Your task to perform on an android device: Go to calendar. Show me events next week Image 0: 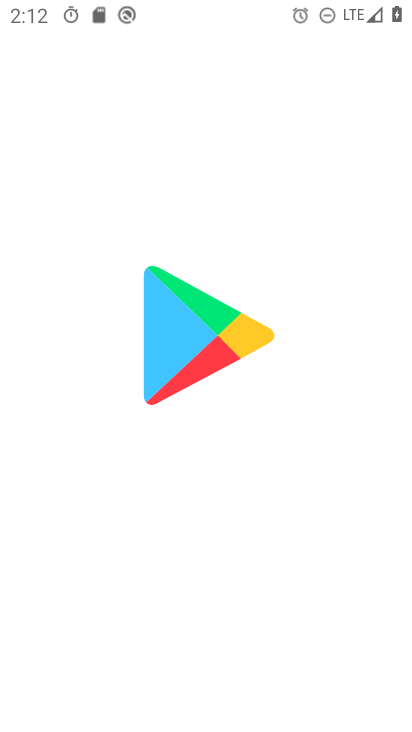
Step 0: drag from (196, 595) to (197, 250)
Your task to perform on an android device: Go to calendar. Show me events next week Image 1: 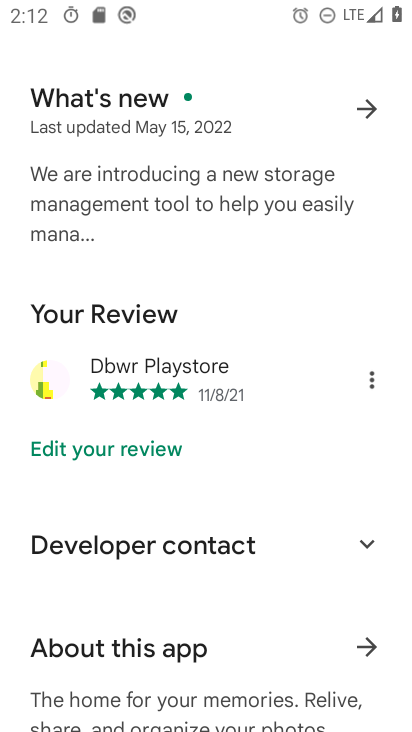
Step 1: press home button
Your task to perform on an android device: Go to calendar. Show me events next week Image 2: 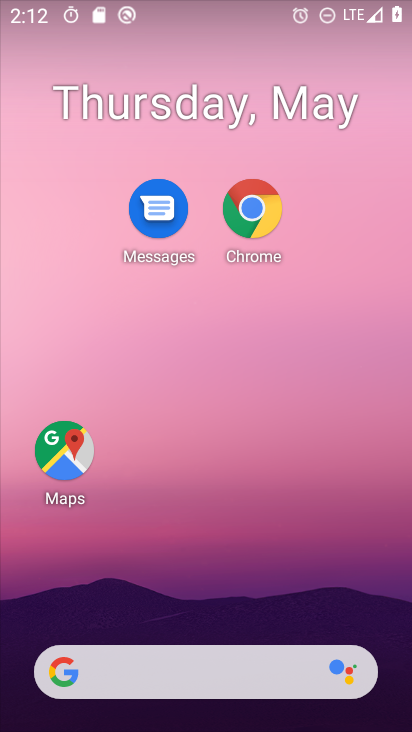
Step 2: drag from (205, 586) to (167, 58)
Your task to perform on an android device: Go to calendar. Show me events next week Image 3: 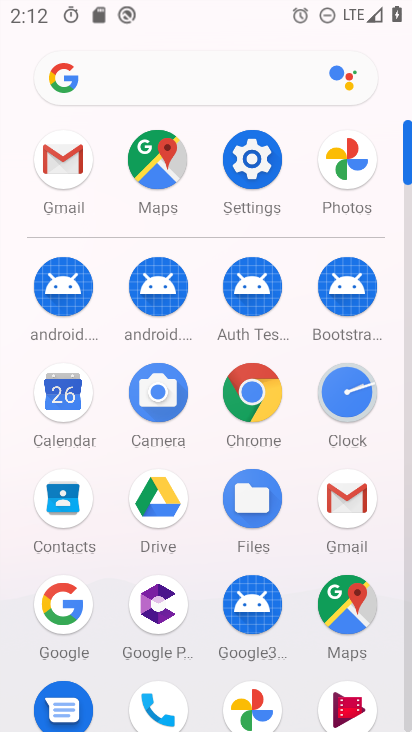
Step 3: click (49, 421)
Your task to perform on an android device: Go to calendar. Show me events next week Image 4: 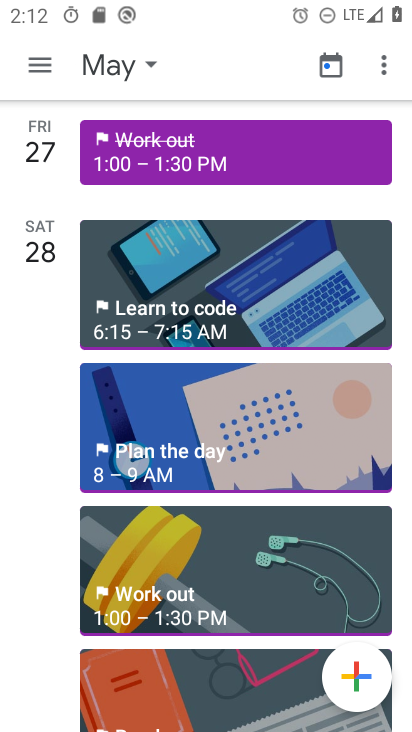
Step 4: click (43, 66)
Your task to perform on an android device: Go to calendar. Show me events next week Image 5: 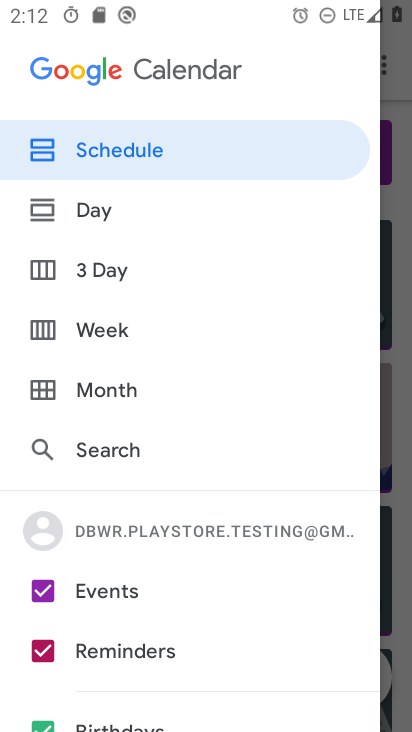
Step 5: click (59, 325)
Your task to perform on an android device: Go to calendar. Show me events next week Image 6: 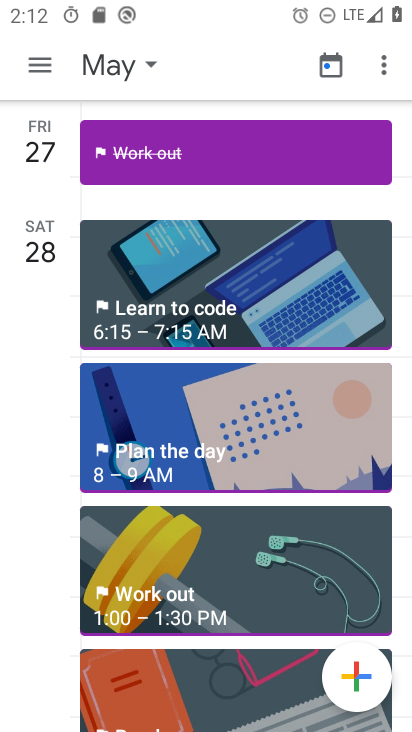
Step 6: click (110, 332)
Your task to perform on an android device: Go to calendar. Show me events next week Image 7: 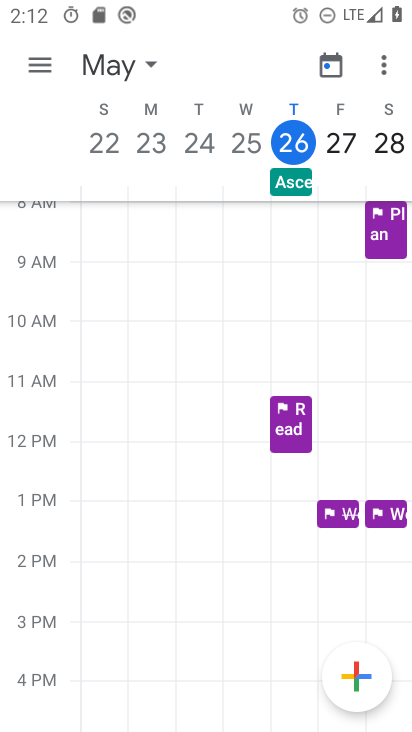
Step 7: drag from (200, 559) to (240, 188)
Your task to perform on an android device: Go to calendar. Show me events next week Image 8: 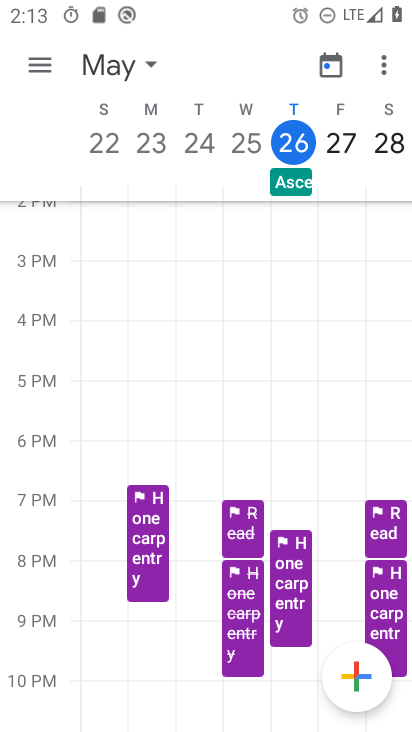
Step 8: click (107, 49)
Your task to perform on an android device: Go to calendar. Show me events next week Image 9: 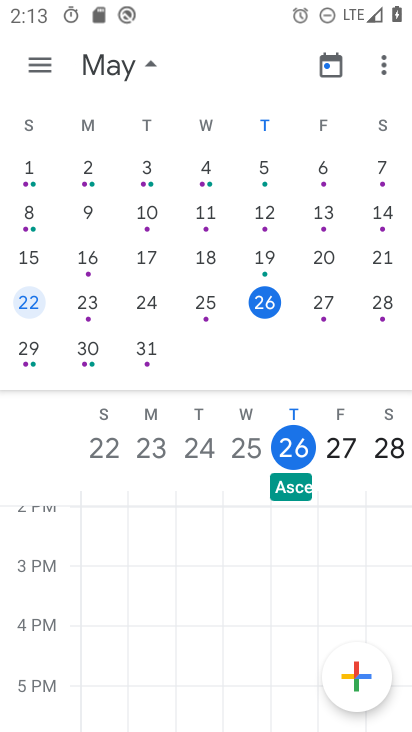
Step 9: click (27, 350)
Your task to perform on an android device: Go to calendar. Show me events next week Image 10: 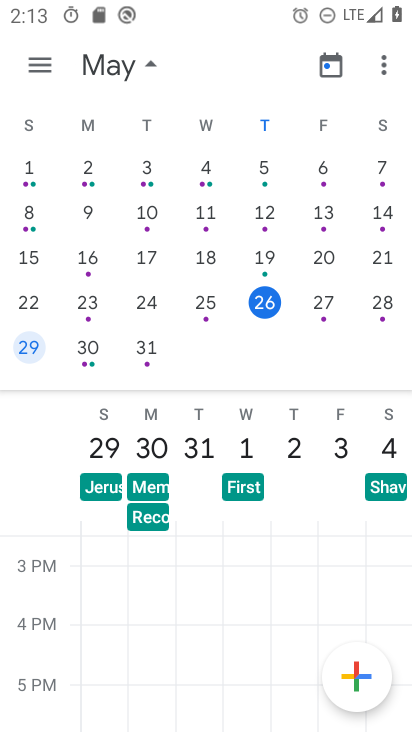
Step 10: task complete